Your task to perform on an android device: stop showing notifications on the lock screen Image 0: 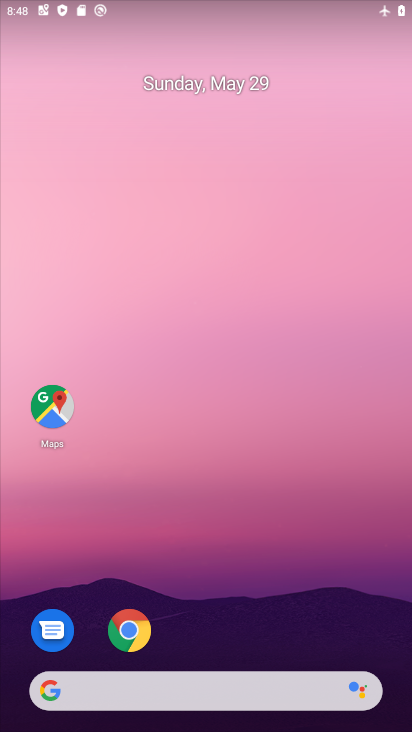
Step 0: click (59, 395)
Your task to perform on an android device: stop showing notifications on the lock screen Image 1: 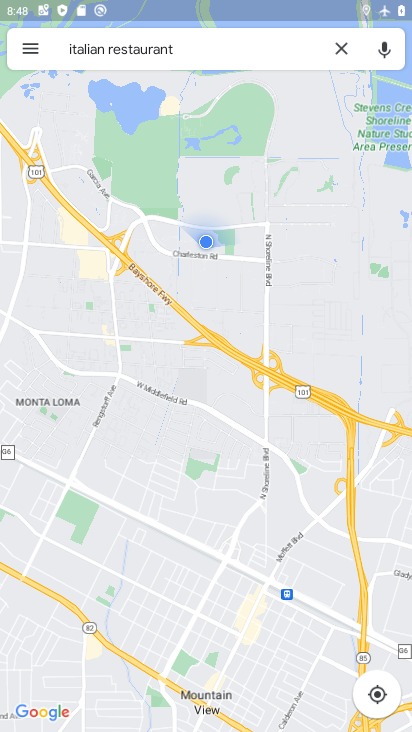
Step 1: press home button
Your task to perform on an android device: stop showing notifications on the lock screen Image 2: 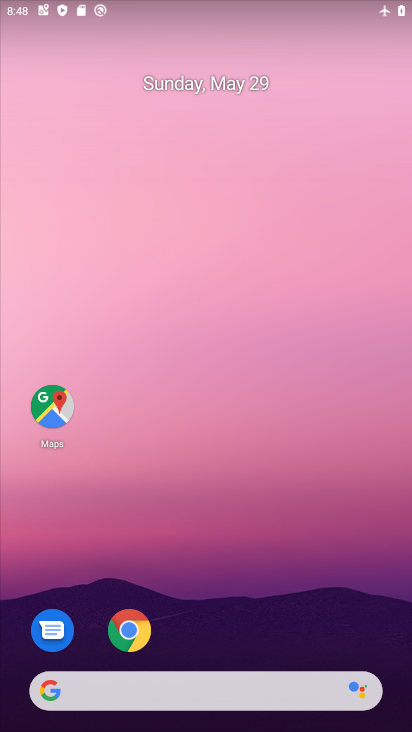
Step 2: drag from (195, 660) to (139, 35)
Your task to perform on an android device: stop showing notifications on the lock screen Image 3: 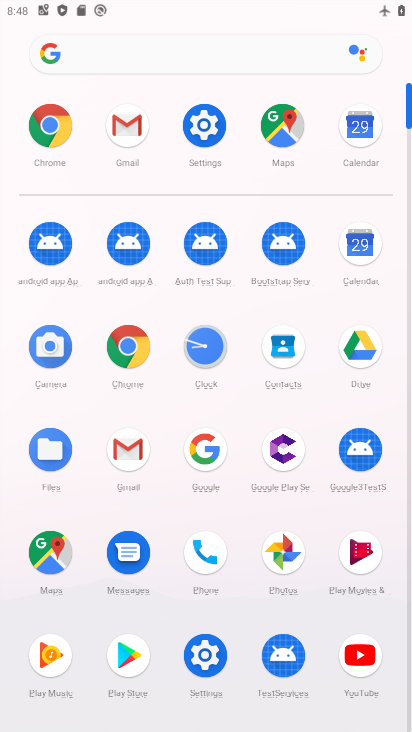
Step 3: click (198, 660)
Your task to perform on an android device: stop showing notifications on the lock screen Image 4: 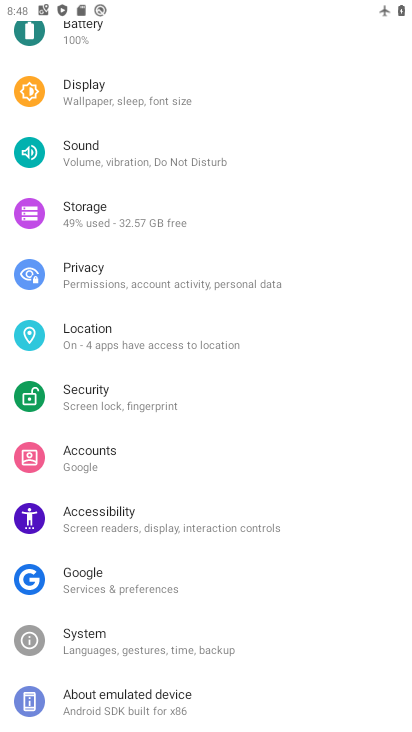
Step 4: drag from (206, 138) to (214, 550)
Your task to perform on an android device: stop showing notifications on the lock screen Image 5: 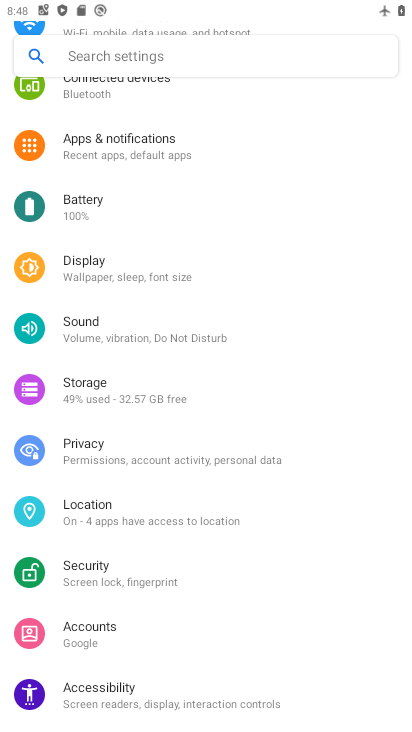
Step 5: click (175, 150)
Your task to perform on an android device: stop showing notifications on the lock screen Image 6: 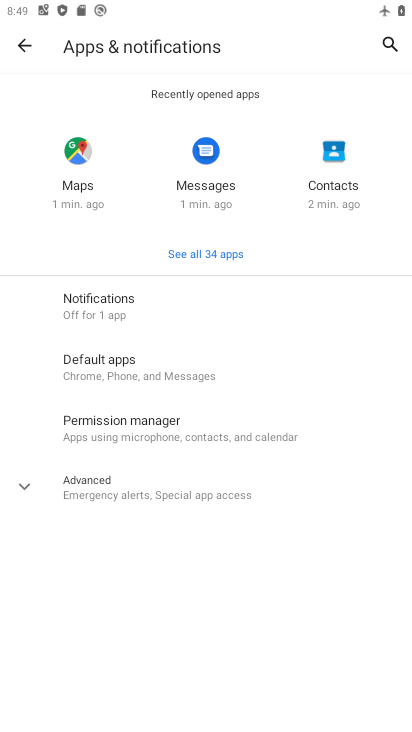
Step 6: click (115, 295)
Your task to perform on an android device: stop showing notifications on the lock screen Image 7: 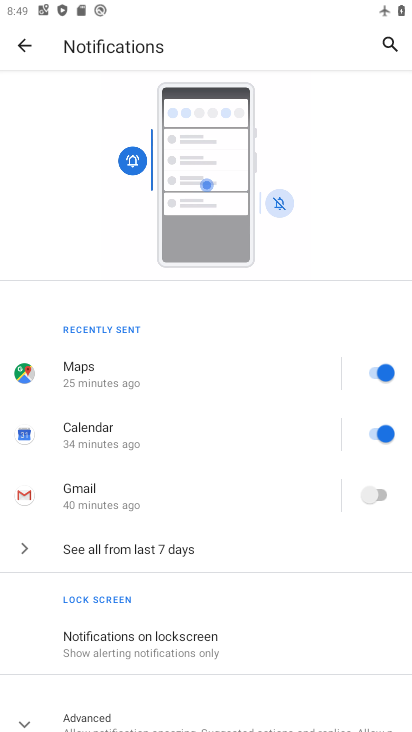
Step 7: click (159, 616)
Your task to perform on an android device: stop showing notifications on the lock screen Image 8: 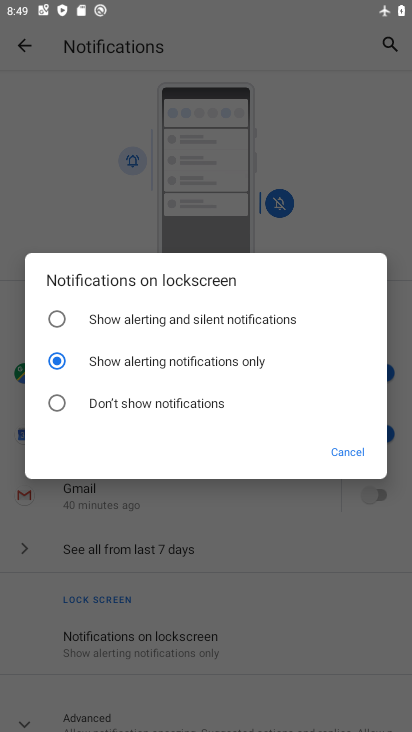
Step 8: click (86, 403)
Your task to perform on an android device: stop showing notifications on the lock screen Image 9: 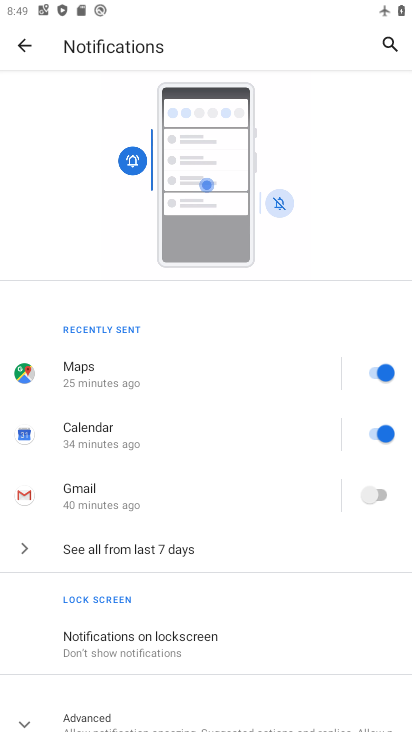
Step 9: task complete